Your task to perform on an android device: Go to location settings Image 0: 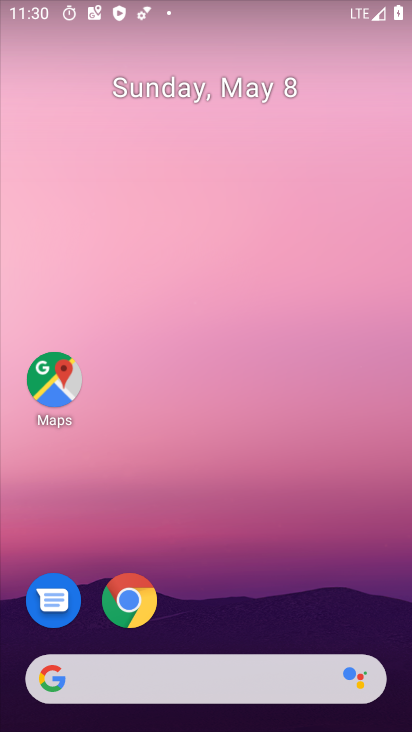
Step 0: drag from (302, 583) to (301, 243)
Your task to perform on an android device: Go to location settings Image 1: 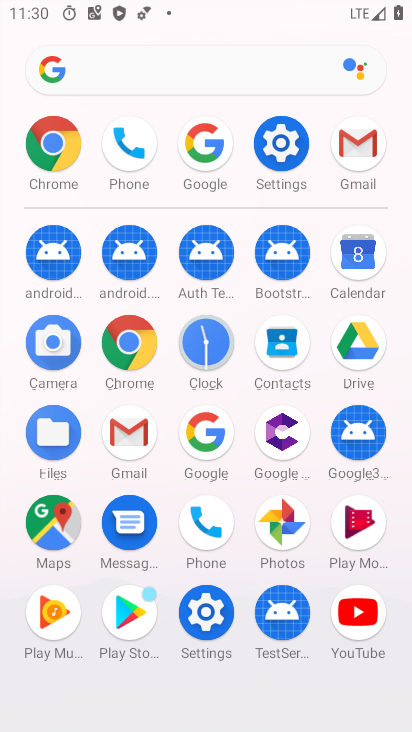
Step 1: click (282, 145)
Your task to perform on an android device: Go to location settings Image 2: 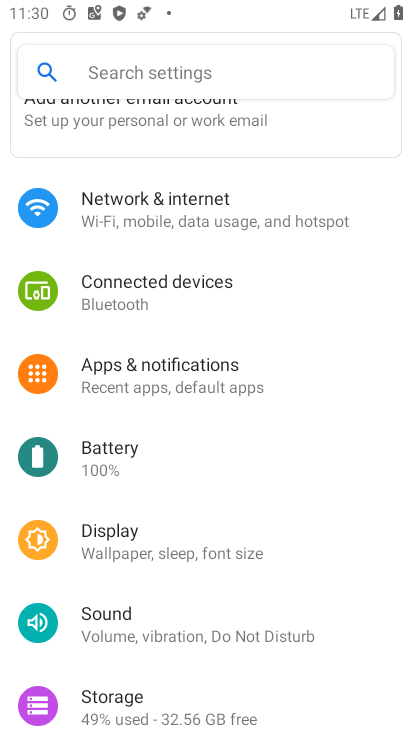
Step 2: drag from (178, 566) to (265, 220)
Your task to perform on an android device: Go to location settings Image 3: 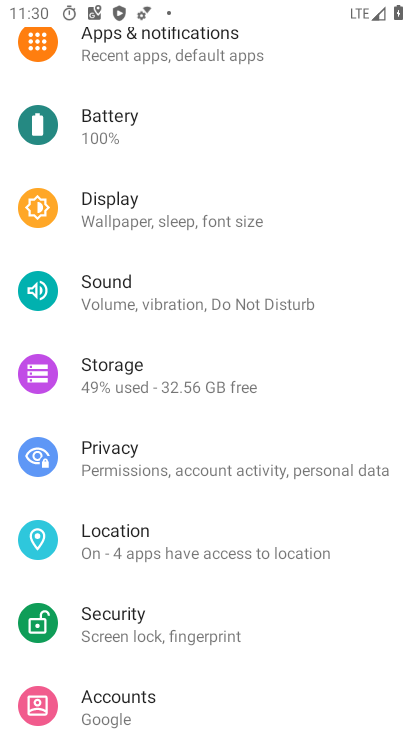
Step 3: click (198, 537)
Your task to perform on an android device: Go to location settings Image 4: 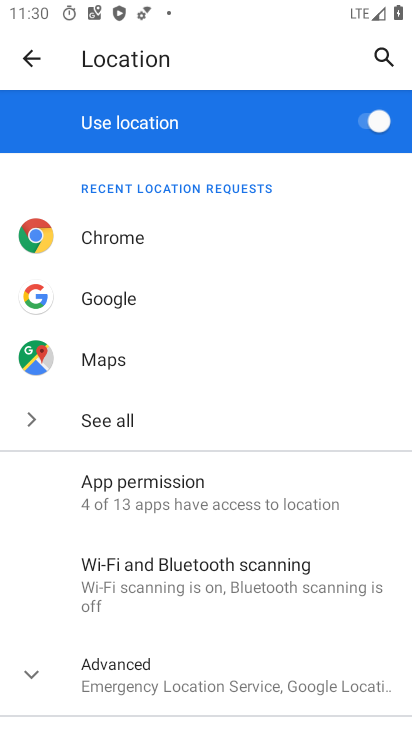
Step 4: task complete